Your task to perform on an android device: turn on improve location accuracy Image 0: 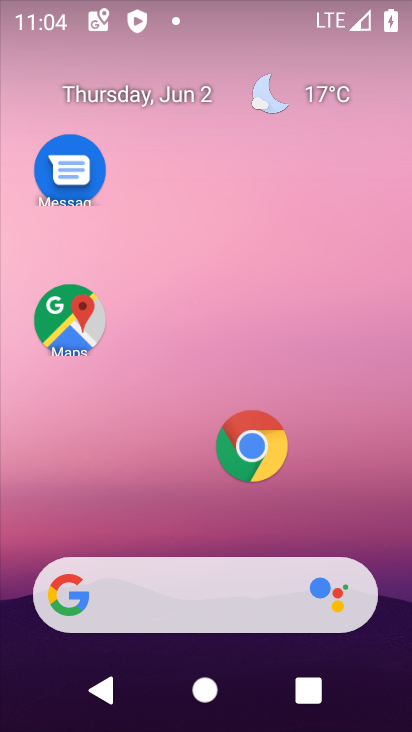
Step 0: drag from (275, 535) to (384, 2)
Your task to perform on an android device: turn on improve location accuracy Image 1: 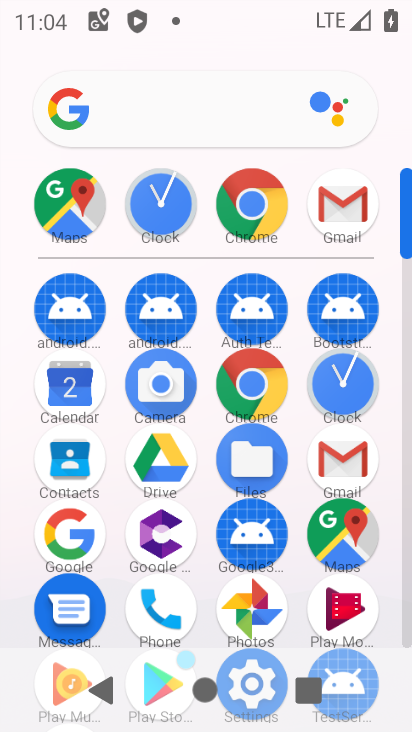
Step 1: click (403, 638)
Your task to perform on an android device: turn on improve location accuracy Image 2: 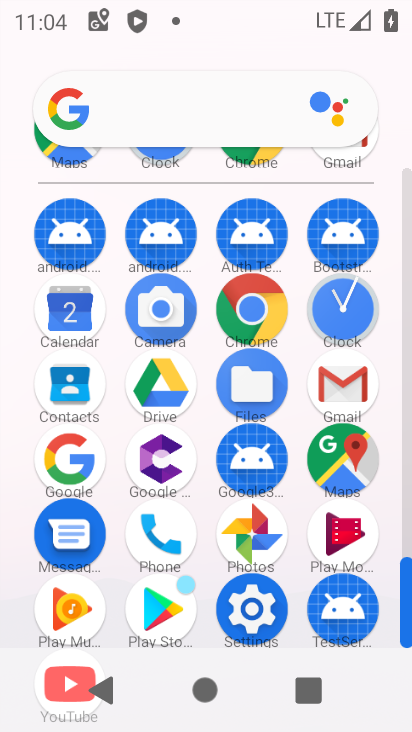
Step 2: click (258, 615)
Your task to perform on an android device: turn on improve location accuracy Image 3: 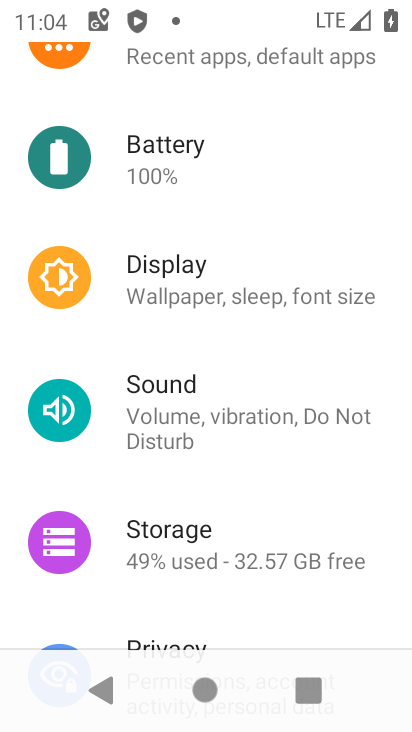
Step 3: drag from (199, 537) to (247, 229)
Your task to perform on an android device: turn on improve location accuracy Image 4: 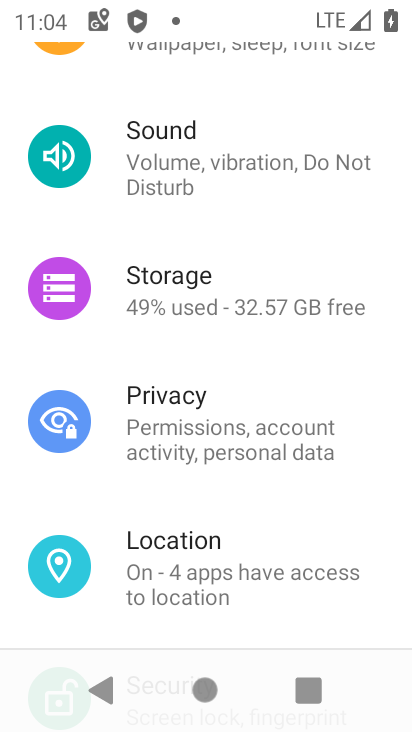
Step 4: click (206, 560)
Your task to perform on an android device: turn on improve location accuracy Image 5: 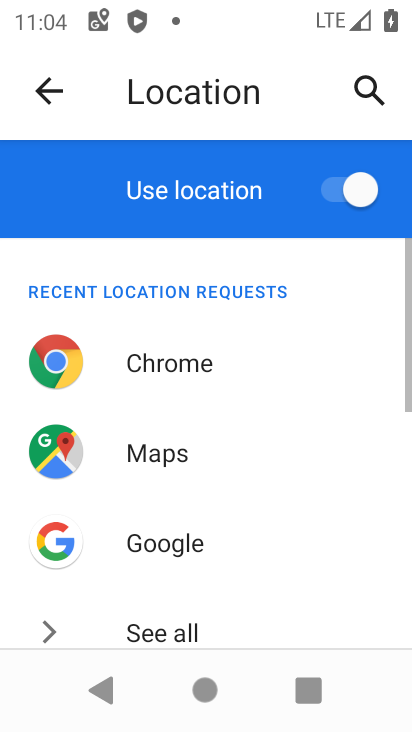
Step 5: drag from (206, 560) to (235, 317)
Your task to perform on an android device: turn on improve location accuracy Image 6: 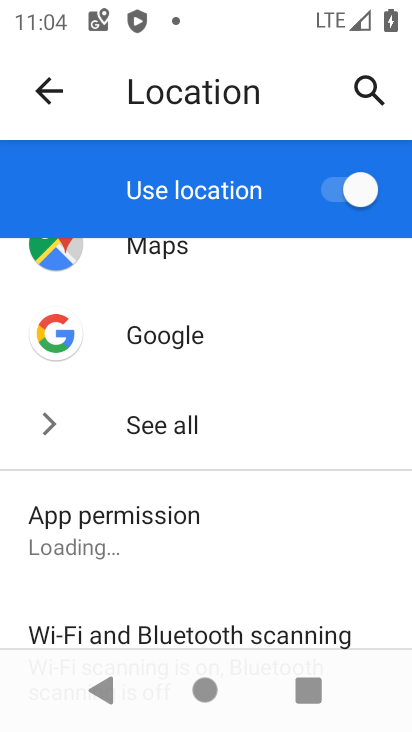
Step 6: drag from (235, 276) to (253, 23)
Your task to perform on an android device: turn on improve location accuracy Image 7: 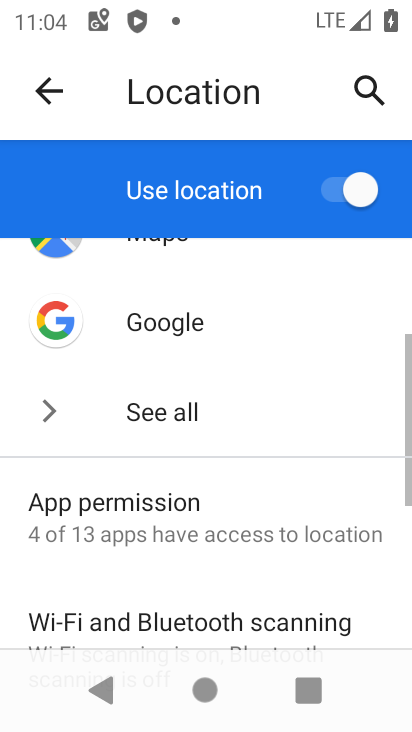
Step 7: drag from (236, 536) to (219, 274)
Your task to perform on an android device: turn on improve location accuracy Image 8: 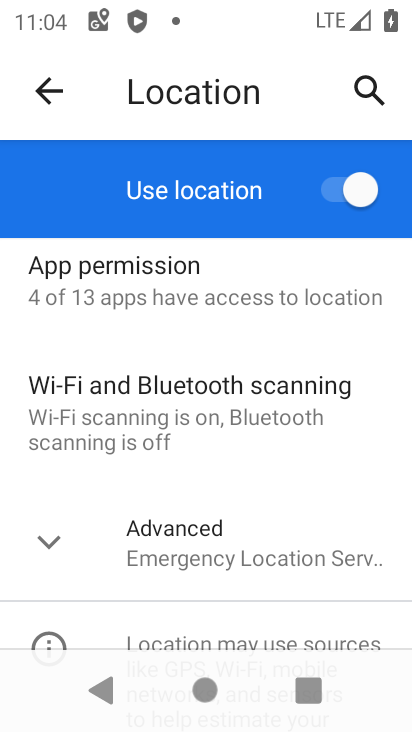
Step 8: click (212, 557)
Your task to perform on an android device: turn on improve location accuracy Image 9: 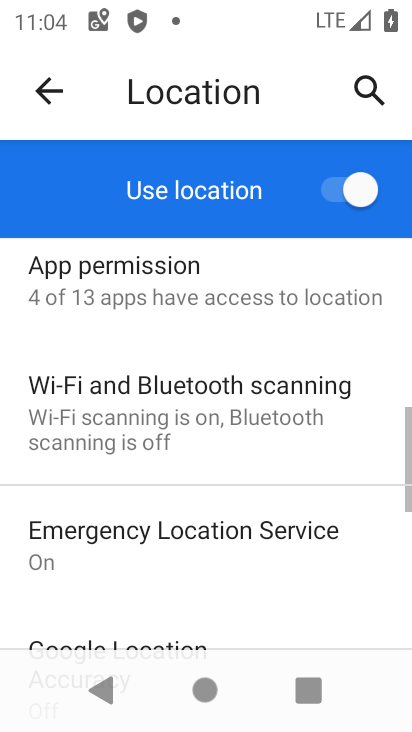
Step 9: drag from (212, 557) to (168, 158)
Your task to perform on an android device: turn on improve location accuracy Image 10: 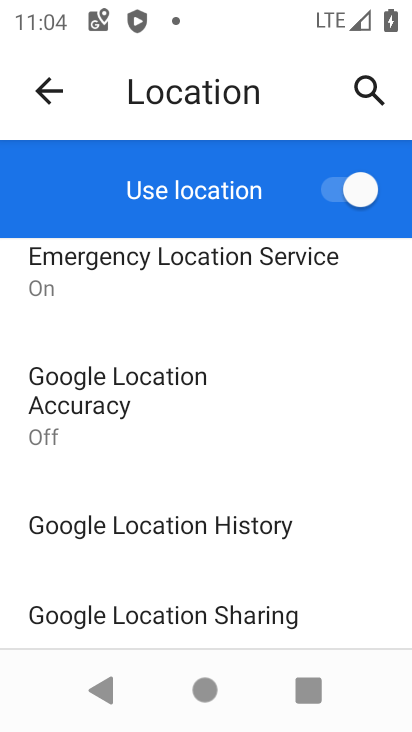
Step 10: click (122, 420)
Your task to perform on an android device: turn on improve location accuracy Image 11: 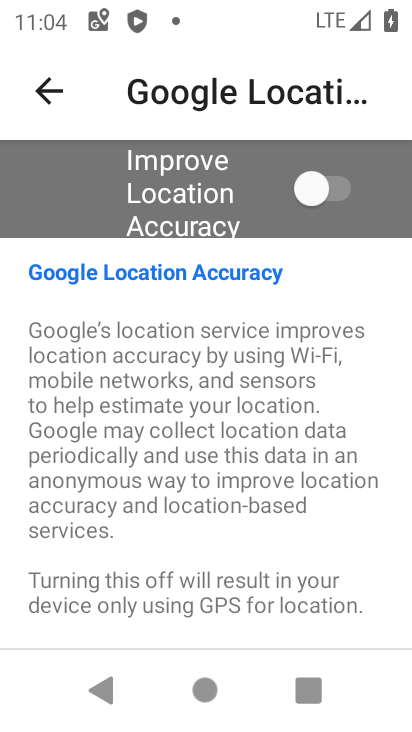
Step 11: drag from (212, 561) to (193, 484)
Your task to perform on an android device: turn on improve location accuracy Image 12: 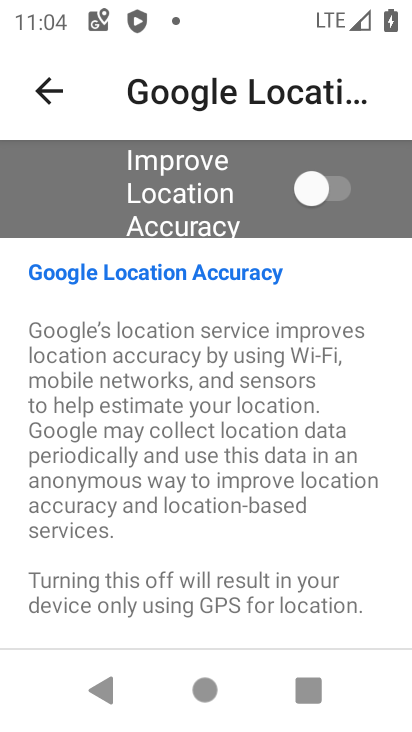
Step 12: click (264, 224)
Your task to perform on an android device: turn on improve location accuracy Image 13: 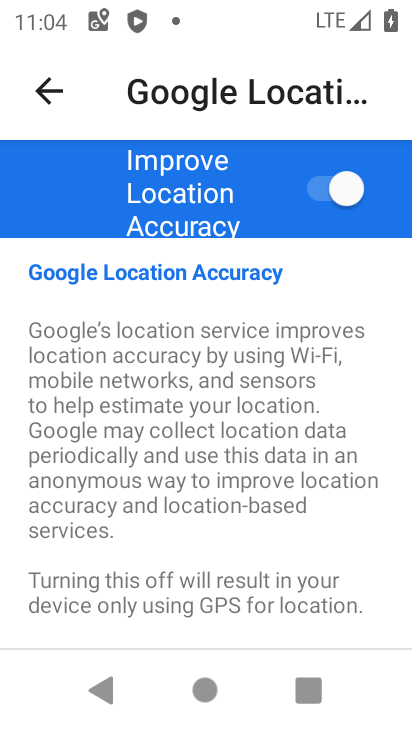
Step 13: task complete